Your task to perform on an android device: Open maps Image 0: 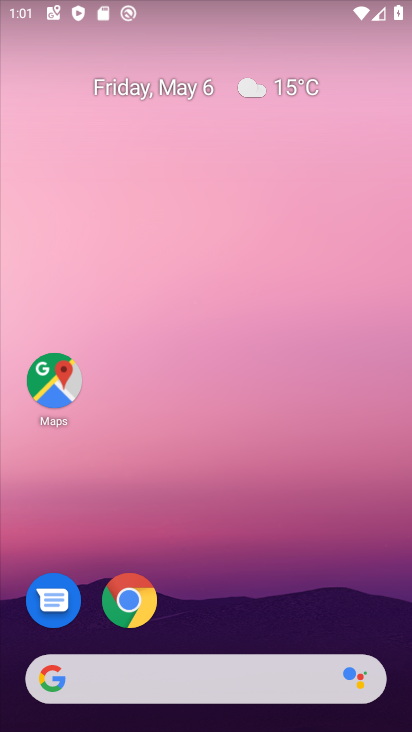
Step 0: drag from (295, 604) to (270, 74)
Your task to perform on an android device: Open maps Image 1: 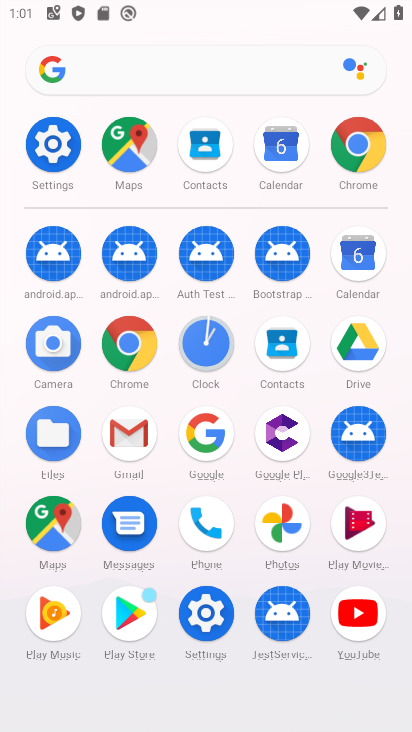
Step 1: click (131, 150)
Your task to perform on an android device: Open maps Image 2: 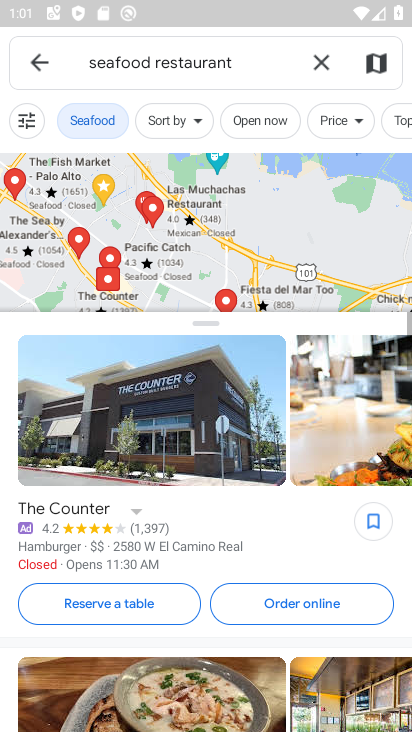
Step 2: click (312, 62)
Your task to perform on an android device: Open maps Image 3: 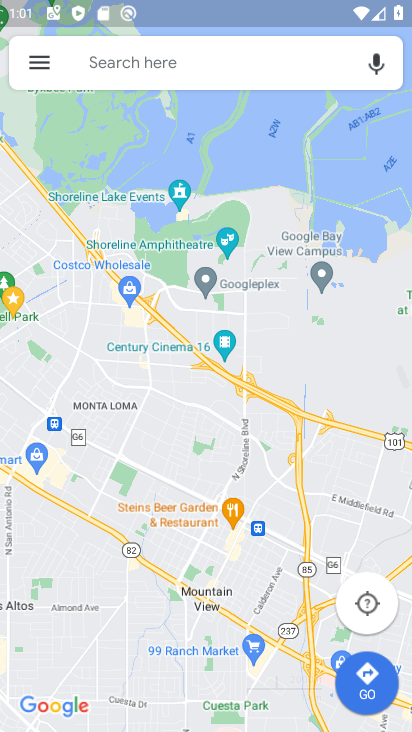
Step 3: task complete